Your task to perform on an android device: Go to Google maps Image 0: 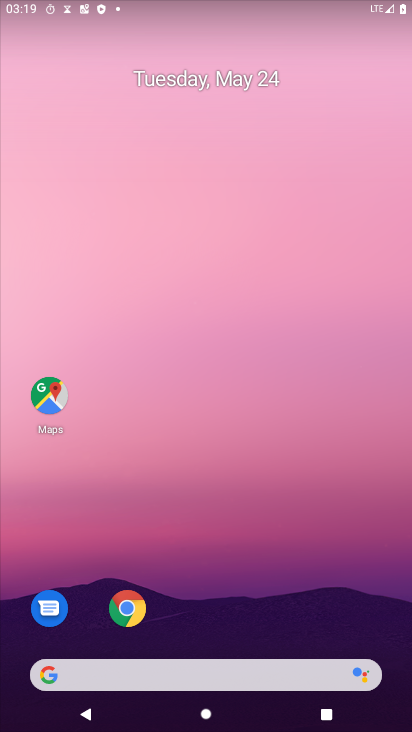
Step 0: click (63, 396)
Your task to perform on an android device: Go to Google maps Image 1: 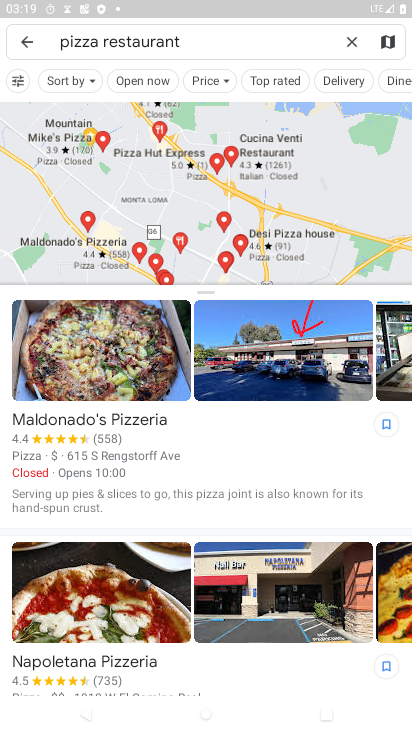
Step 1: task complete